Your task to perform on an android device: toggle data saver in the chrome app Image 0: 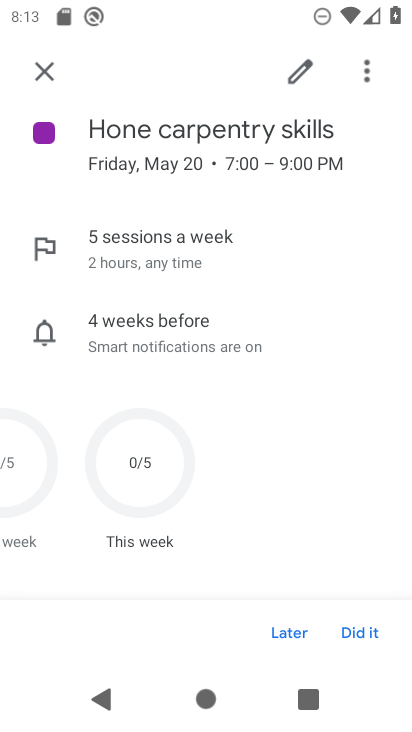
Step 0: press home button
Your task to perform on an android device: toggle data saver in the chrome app Image 1: 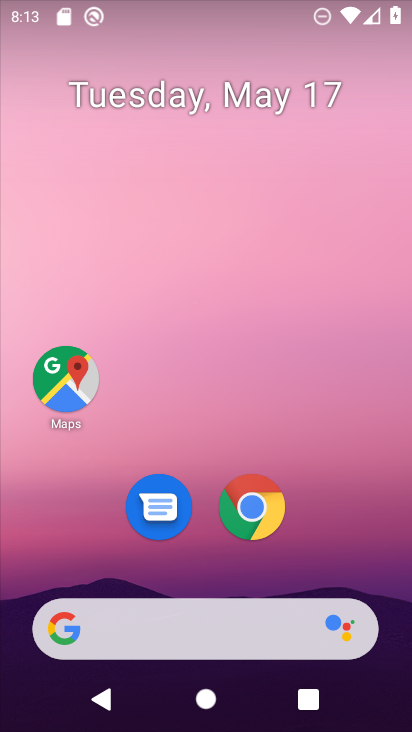
Step 1: click (262, 504)
Your task to perform on an android device: toggle data saver in the chrome app Image 2: 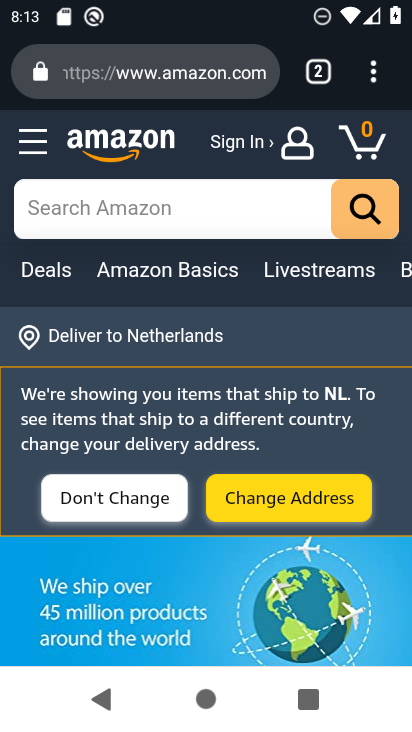
Step 2: click (378, 80)
Your task to perform on an android device: toggle data saver in the chrome app Image 3: 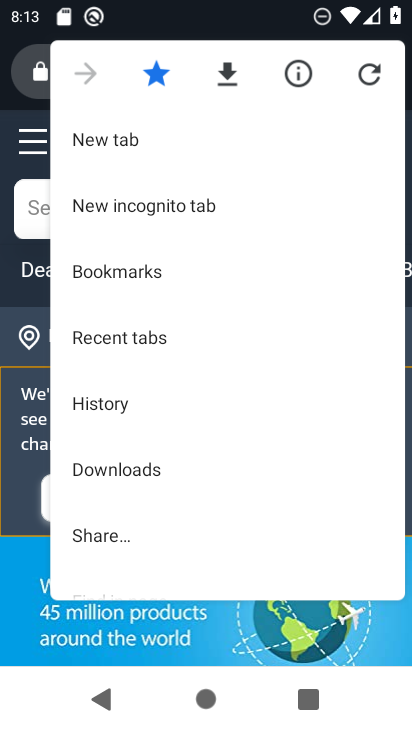
Step 3: drag from (163, 493) to (175, 175)
Your task to perform on an android device: toggle data saver in the chrome app Image 4: 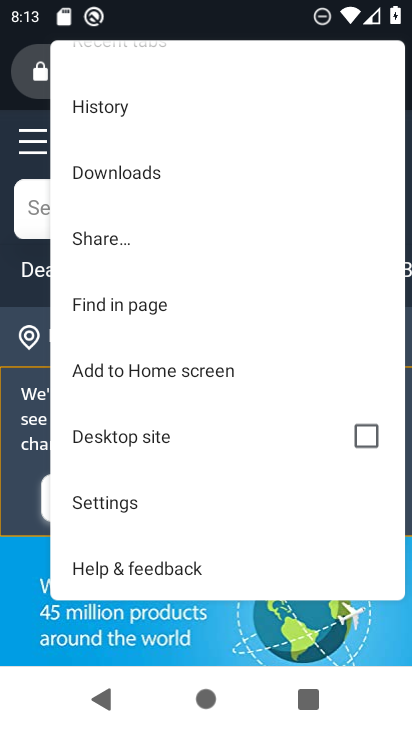
Step 4: click (123, 503)
Your task to perform on an android device: toggle data saver in the chrome app Image 5: 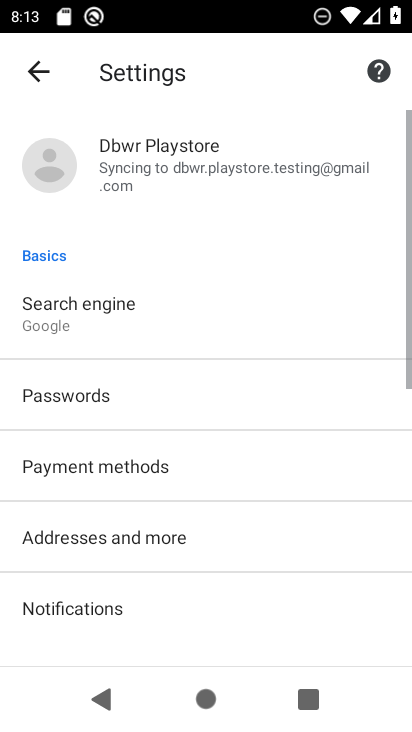
Step 5: drag from (198, 576) to (209, 192)
Your task to perform on an android device: toggle data saver in the chrome app Image 6: 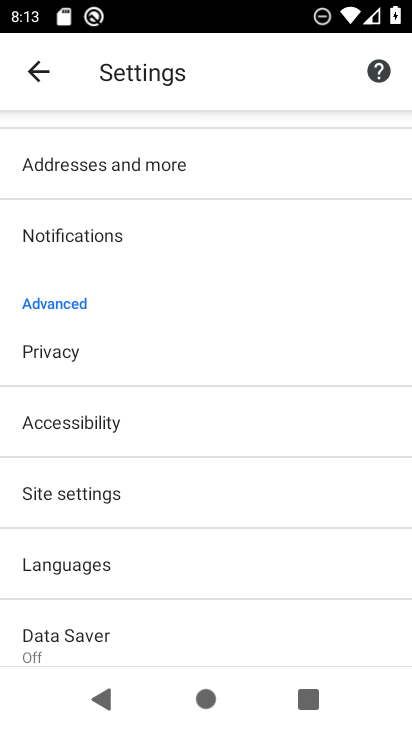
Step 6: click (76, 635)
Your task to perform on an android device: toggle data saver in the chrome app Image 7: 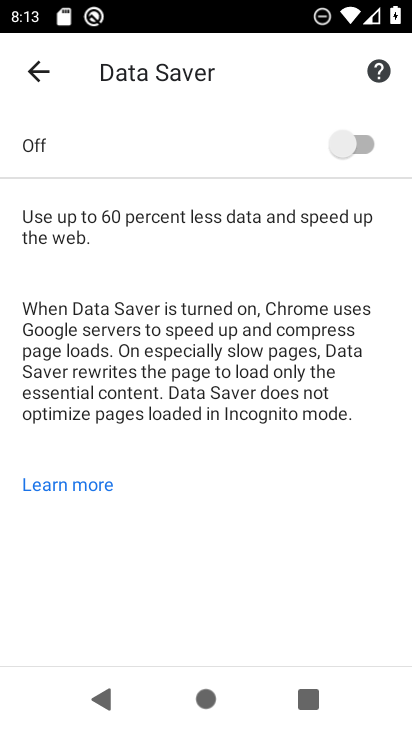
Step 7: click (345, 144)
Your task to perform on an android device: toggle data saver in the chrome app Image 8: 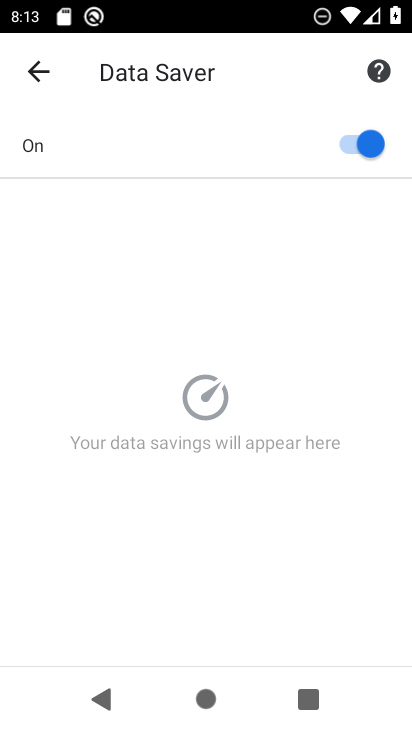
Step 8: task complete